Your task to perform on an android device: delete browsing data in the chrome app Image 0: 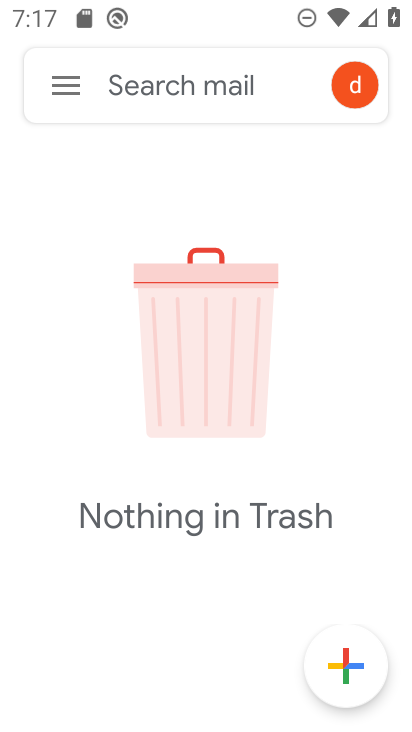
Step 0: press home button
Your task to perform on an android device: delete browsing data in the chrome app Image 1: 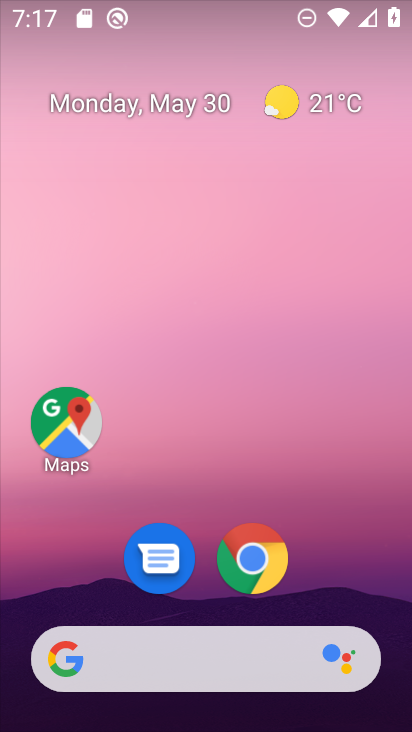
Step 1: click (249, 565)
Your task to perform on an android device: delete browsing data in the chrome app Image 2: 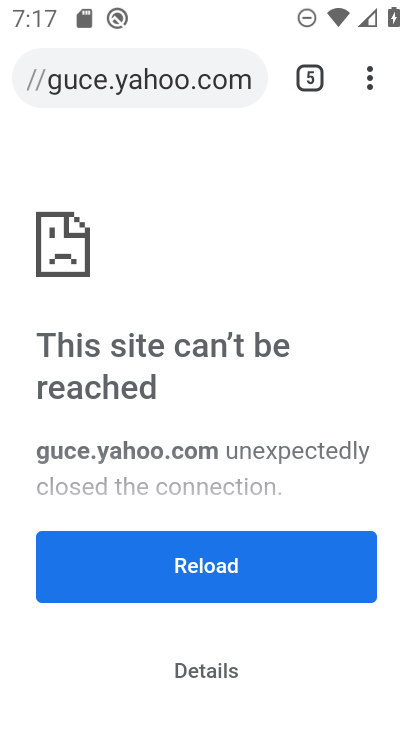
Step 2: click (372, 72)
Your task to perform on an android device: delete browsing data in the chrome app Image 3: 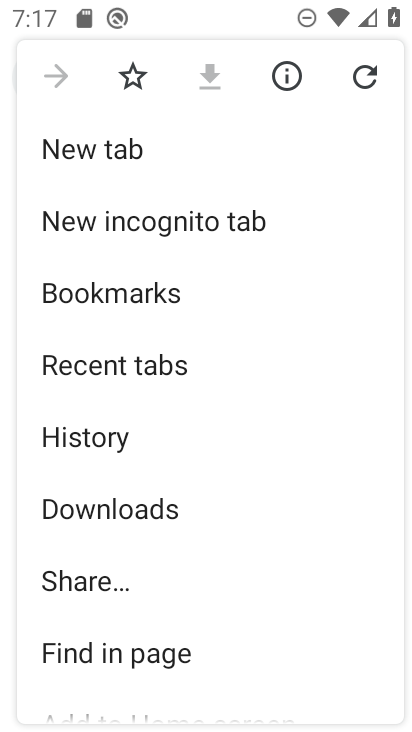
Step 3: click (106, 439)
Your task to perform on an android device: delete browsing data in the chrome app Image 4: 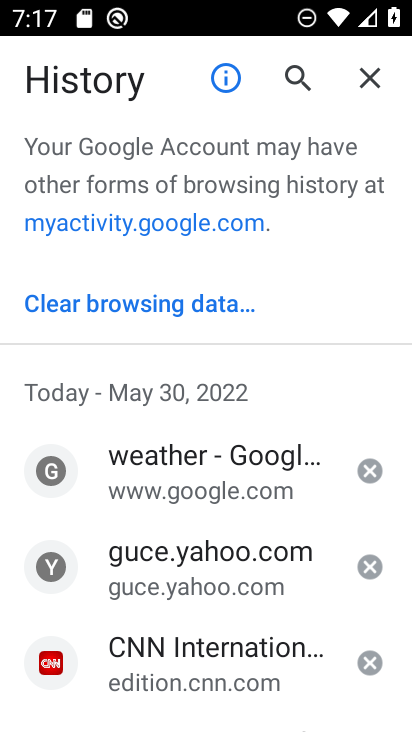
Step 4: click (164, 297)
Your task to perform on an android device: delete browsing data in the chrome app Image 5: 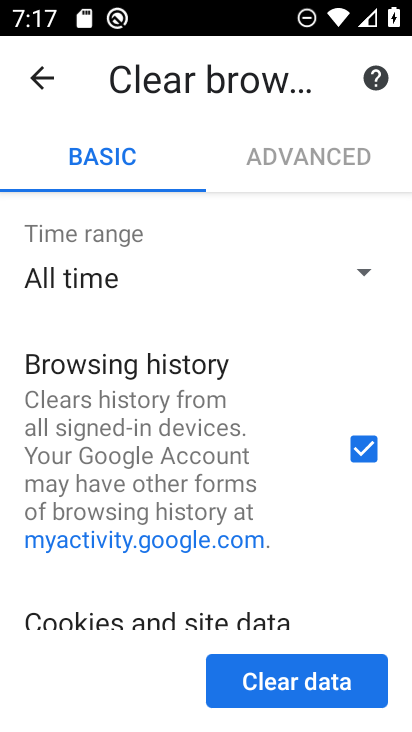
Step 5: click (311, 682)
Your task to perform on an android device: delete browsing data in the chrome app Image 6: 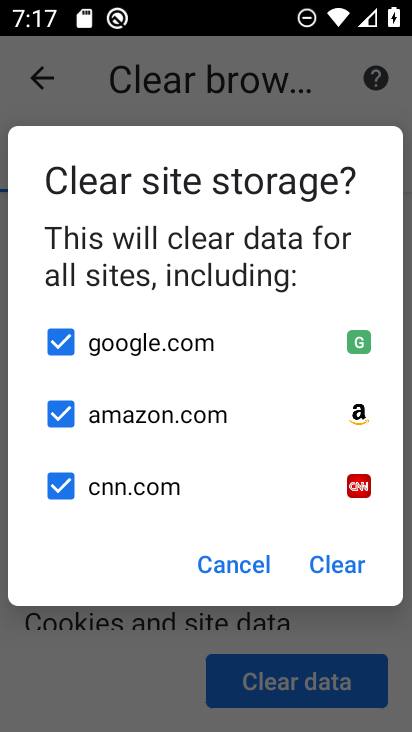
Step 6: click (340, 564)
Your task to perform on an android device: delete browsing data in the chrome app Image 7: 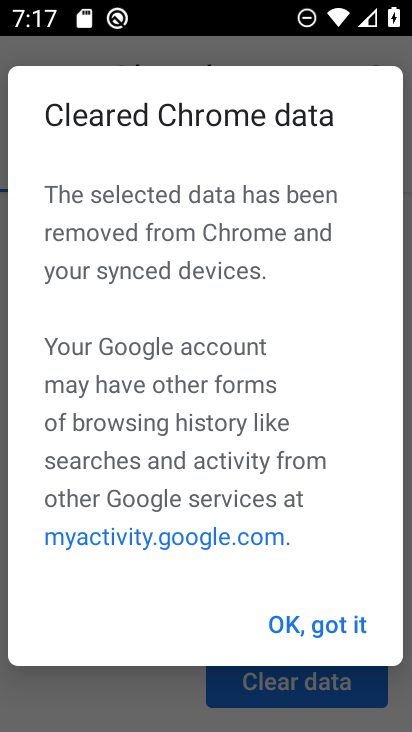
Step 7: click (328, 619)
Your task to perform on an android device: delete browsing data in the chrome app Image 8: 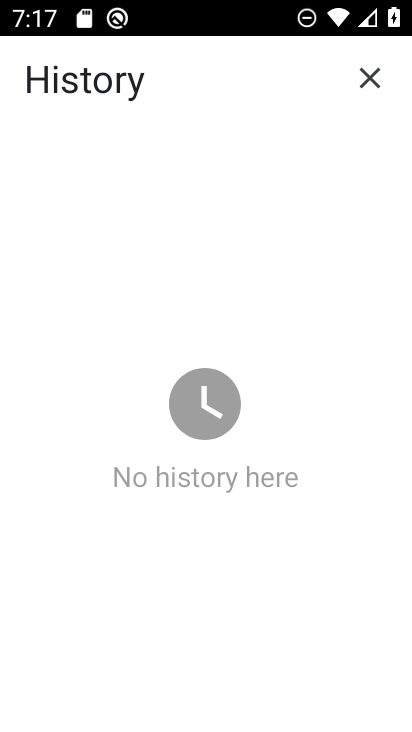
Step 8: task complete